Your task to perform on an android device: Open ESPN.com Image 0: 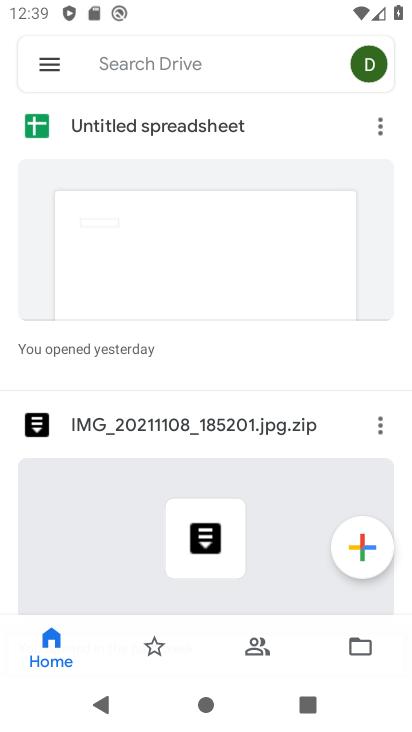
Step 0: press home button
Your task to perform on an android device: Open ESPN.com Image 1: 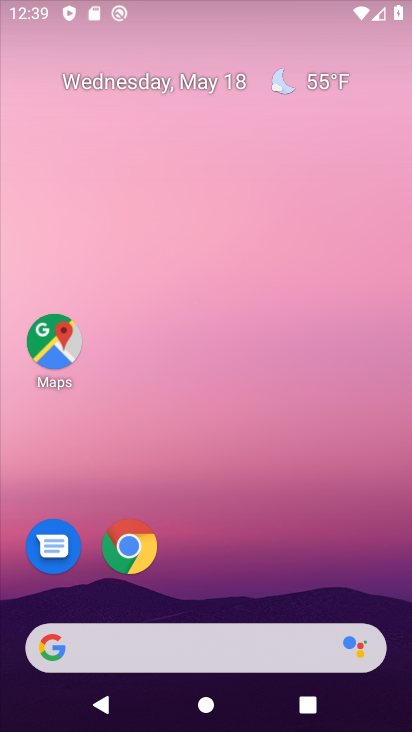
Step 1: drag from (353, 580) to (346, 221)
Your task to perform on an android device: Open ESPN.com Image 2: 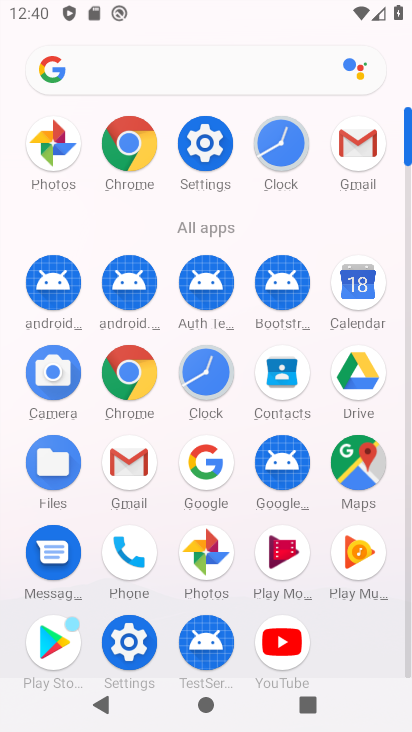
Step 2: click (141, 391)
Your task to perform on an android device: Open ESPN.com Image 3: 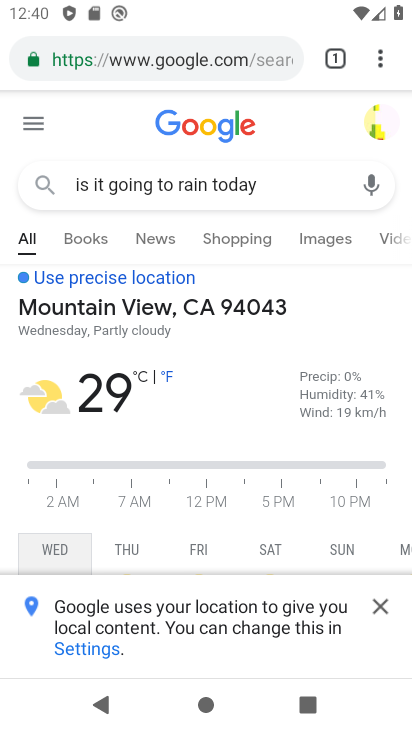
Step 3: click (215, 59)
Your task to perform on an android device: Open ESPN.com Image 4: 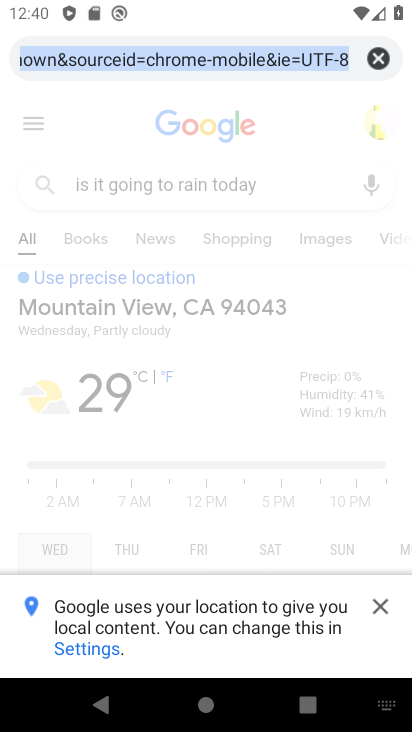
Step 4: click (380, 69)
Your task to perform on an android device: Open ESPN.com Image 5: 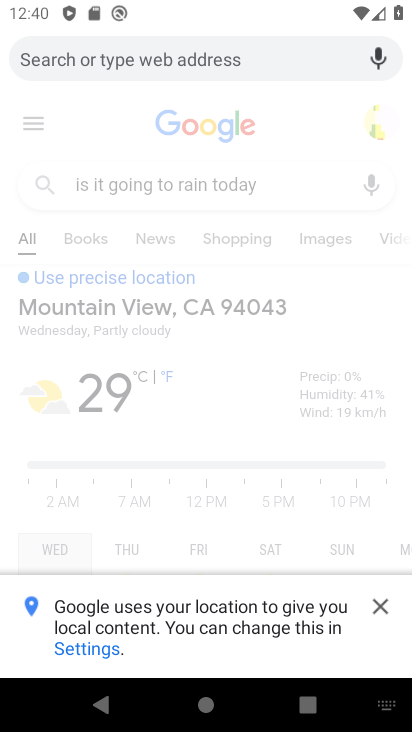
Step 5: type "espn.com"
Your task to perform on an android device: Open ESPN.com Image 6: 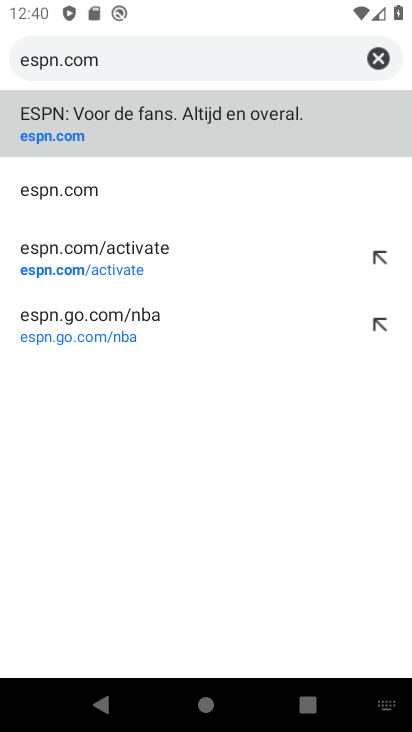
Step 6: click (84, 136)
Your task to perform on an android device: Open ESPN.com Image 7: 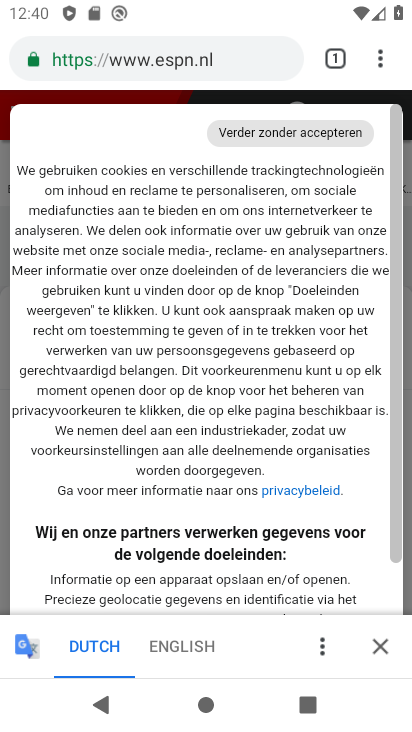
Step 7: task complete